Your task to perform on an android device: Empty the shopping cart on bestbuy. Search for "bose quietcomfort 35" on bestbuy, select the first entry, add it to the cart, then select checkout. Image 0: 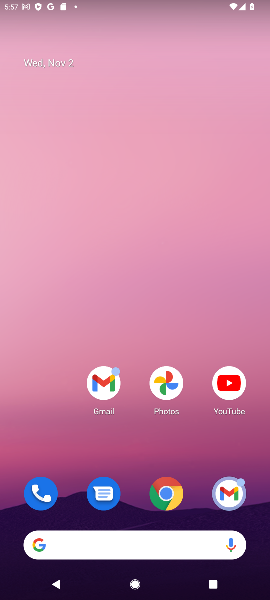
Step 0: drag from (87, 533) to (130, 175)
Your task to perform on an android device: Empty the shopping cart on bestbuy. Search for "bose quietcomfort 35" on bestbuy, select the first entry, add it to the cart, then select checkout. Image 1: 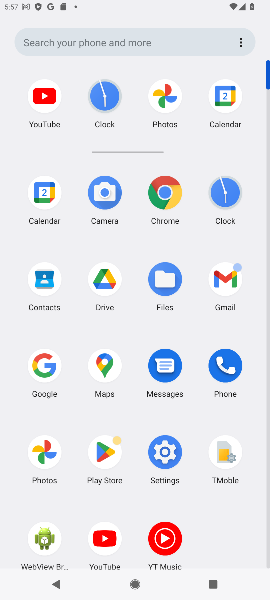
Step 1: click (38, 357)
Your task to perform on an android device: Empty the shopping cart on bestbuy. Search for "bose quietcomfort 35" on bestbuy, select the first entry, add it to the cart, then select checkout. Image 2: 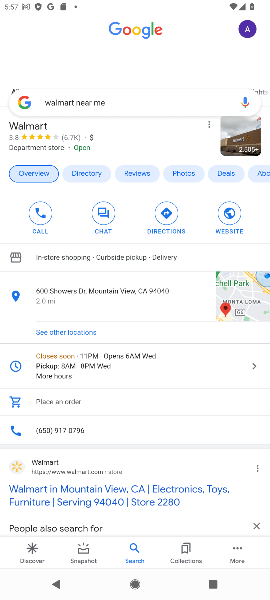
Step 2: click (134, 100)
Your task to perform on an android device: Empty the shopping cart on bestbuy. Search for "bose quietcomfort 35" on bestbuy, select the first entry, add it to the cart, then select checkout. Image 3: 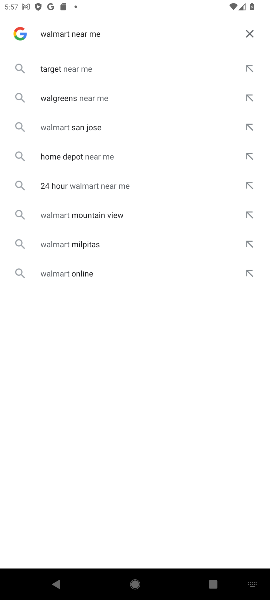
Step 3: click (241, 33)
Your task to perform on an android device: Empty the shopping cart on bestbuy. Search for "bose quietcomfort 35" on bestbuy, select the first entry, add it to the cart, then select checkout. Image 4: 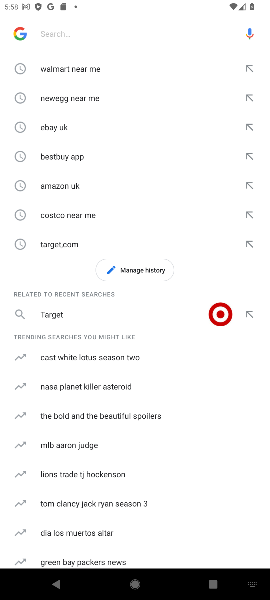
Step 4: click (56, 32)
Your task to perform on an android device: Empty the shopping cart on bestbuy. Search for "bose quietcomfort 35" on bestbuy, select the first entry, add it to the cart, then select checkout. Image 5: 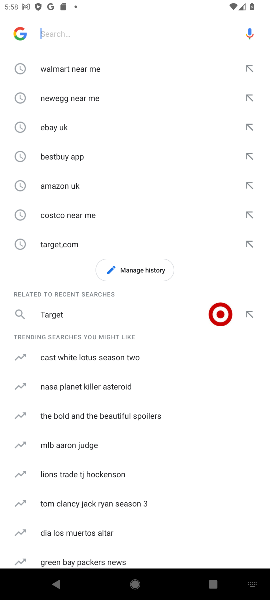
Step 5: type "bestbuy "
Your task to perform on an android device: Empty the shopping cart on bestbuy. Search for "bose quietcomfort 35" on bestbuy, select the first entry, add it to the cart, then select checkout. Image 6: 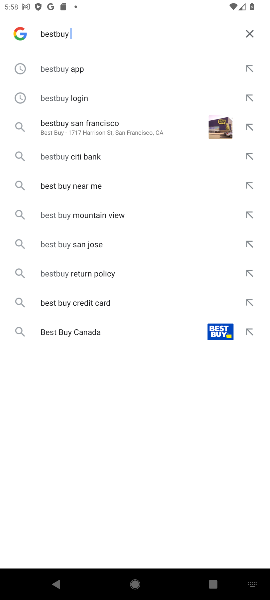
Step 6: click (59, 64)
Your task to perform on an android device: Empty the shopping cart on bestbuy. Search for "bose quietcomfort 35" on bestbuy, select the first entry, add it to the cart, then select checkout. Image 7: 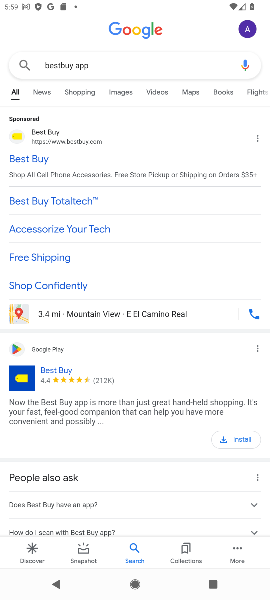
Step 7: drag from (55, 471) to (89, 172)
Your task to perform on an android device: Empty the shopping cart on bestbuy. Search for "bose quietcomfort 35" on bestbuy, select the first entry, add it to the cart, then select checkout. Image 8: 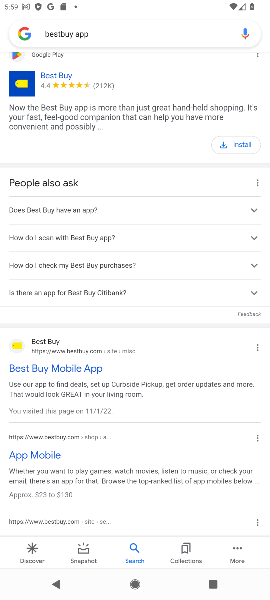
Step 8: drag from (124, 139) to (97, 599)
Your task to perform on an android device: Empty the shopping cart on bestbuy. Search for "bose quietcomfort 35" on bestbuy, select the first entry, add it to the cart, then select checkout. Image 9: 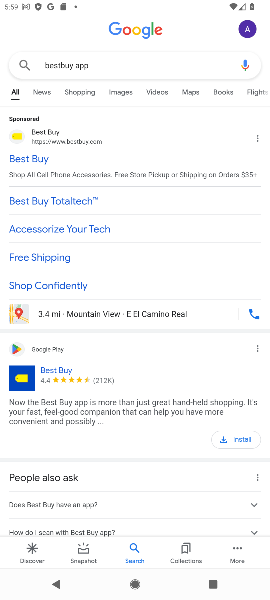
Step 9: click (11, 129)
Your task to perform on an android device: Empty the shopping cart on bestbuy. Search for "bose quietcomfort 35" on bestbuy, select the first entry, add it to the cart, then select checkout. Image 10: 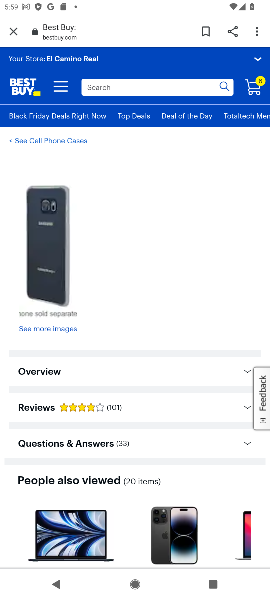
Step 10: click (139, 84)
Your task to perform on an android device: Empty the shopping cart on bestbuy. Search for "bose quietcomfort 35" on bestbuy, select the first entry, add it to the cart, then select checkout. Image 11: 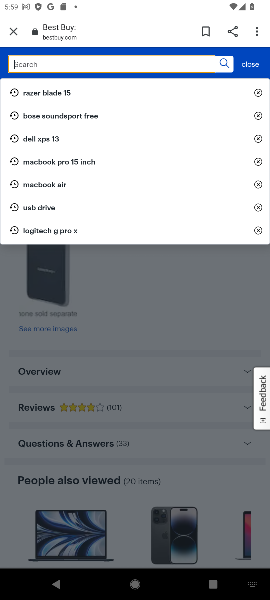
Step 11: click (109, 55)
Your task to perform on an android device: Empty the shopping cart on bestbuy. Search for "bose quietcomfort 35" on bestbuy, select the first entry, add it to the cart, then select checkout. Image 12: 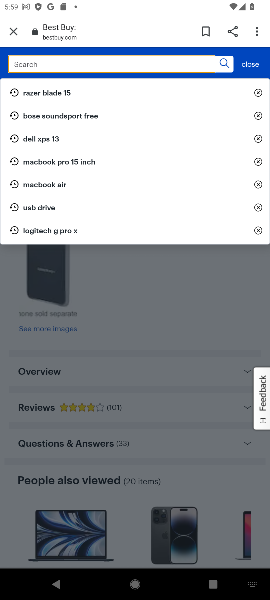
Step 12: type "bose quietcomfort 35 "
Your task to perform on an android device: Empty the shopping cart on bestbuy. Search for "bose quietcomfort 35" on bestbuy, select the first entry, add it to the cart, then select checkout. Image 13: 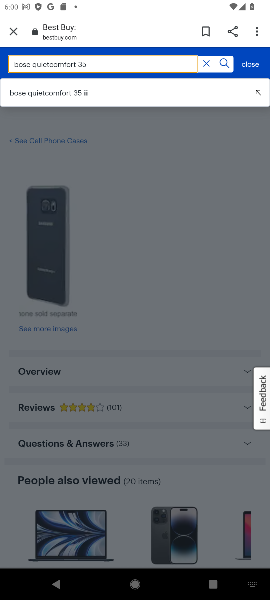
Step 13: click (224, 61)
Your task to perform on an android device: Empty the shopping cart on bestbuy. Search for "bose quietcomfort 35" on bestbuy, select the first entry, add it to the cart, then select checkout. Image 14: 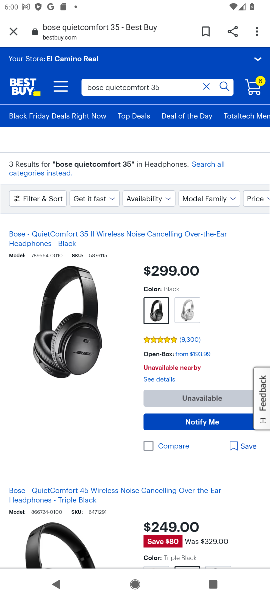
Step 14: drag from (120, 408) to (132, 219)
Your task to perform on an android device: Empty the shopping cart on bestbuy. Search for "bose quietcomfort 35" on bestbuy, select the first entry, add it to the cart, then select checkout. Image 15: 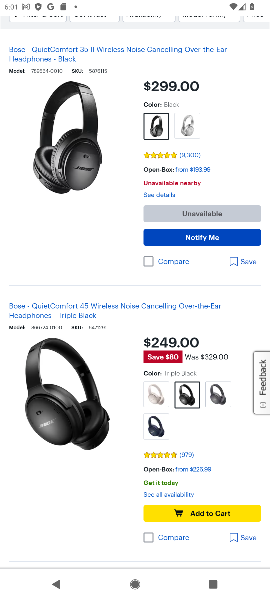
Step 15: click (198, 511)
Your task to perform on an android device: Empty the shopping cart on bestbuy. Search for "bose quietcomfort 35" on bestbuy, select the first entry, add it to the cart, then select checkout. Image 16: 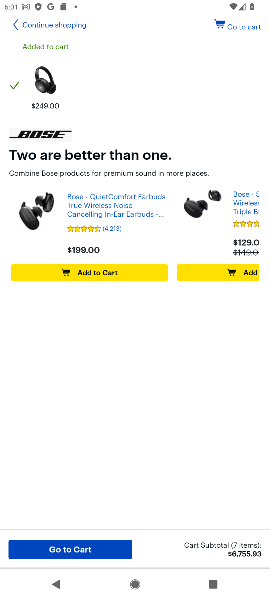
Step 16: click (127, 266)
Your task to perform on an android device: Empty the shopping cart on bestbuy. Search for "bose quietcomfort 35" on bestbuy, select the first entry, add it to the cart, then select checkout. Image 17: 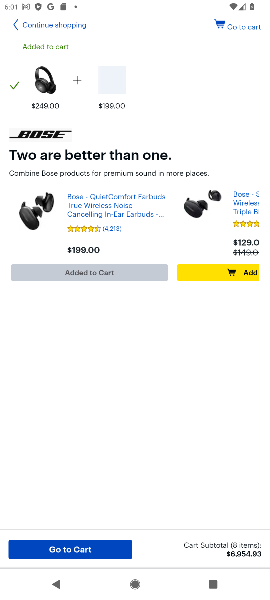
Step 17: task complete